Your task to perform on an android device: Go to accessibility settings Image 0: 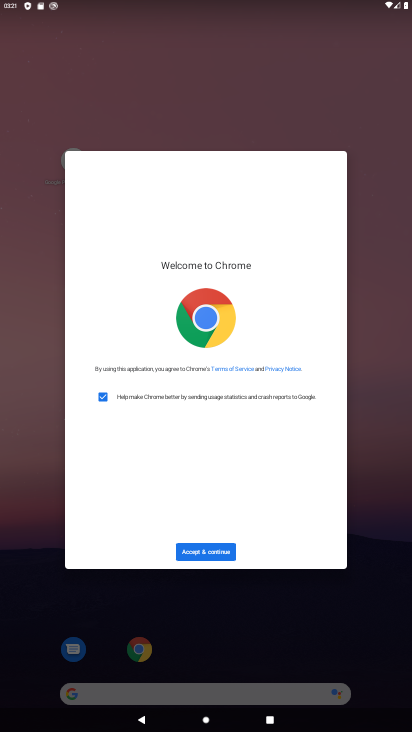
Step 0: press home button
Your task to perform on an android device: Go to accessibility settings Image 1: 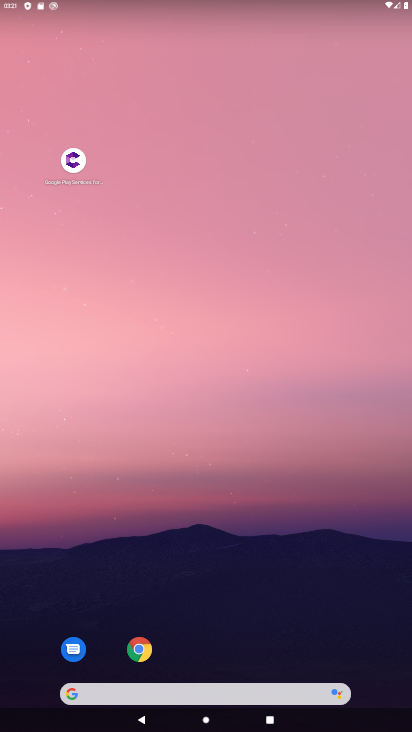
Step 1: drag from (231, 615) to (232, 152)
Your task to perform on an android device: Go to accessibility settings Image 2: 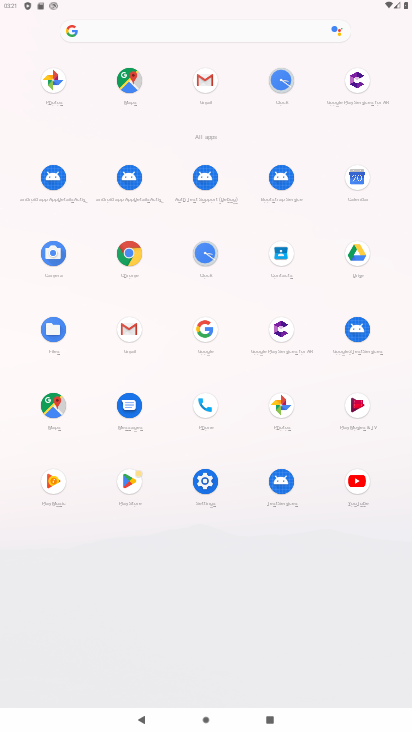
Step 2: click (201, 474)
Your task to perform on an android device: Go to accessibility settings Image 3: 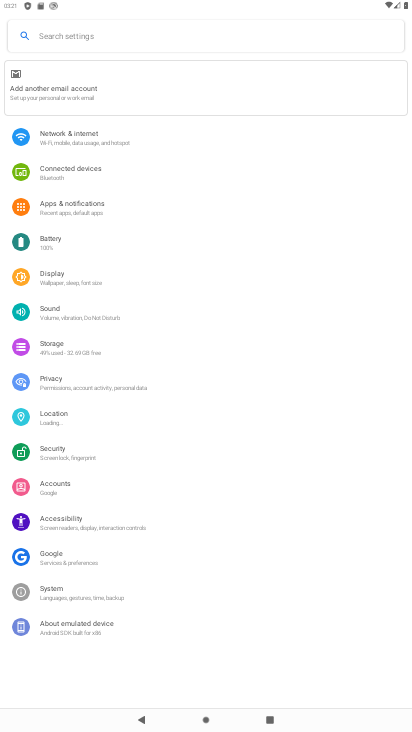
Step 3: click (97, 519)
Your task to perform on an android device: Go to accessibility settings Image 4: 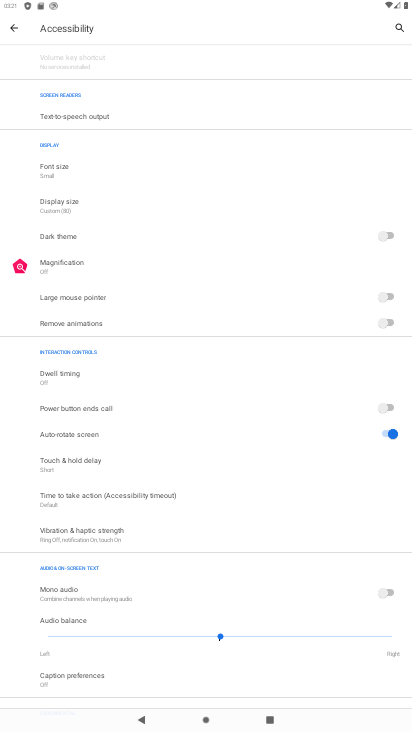
Step 4: task complete